Your task to perform on an android device: toggle priority inbox in the gmail app Image 0: 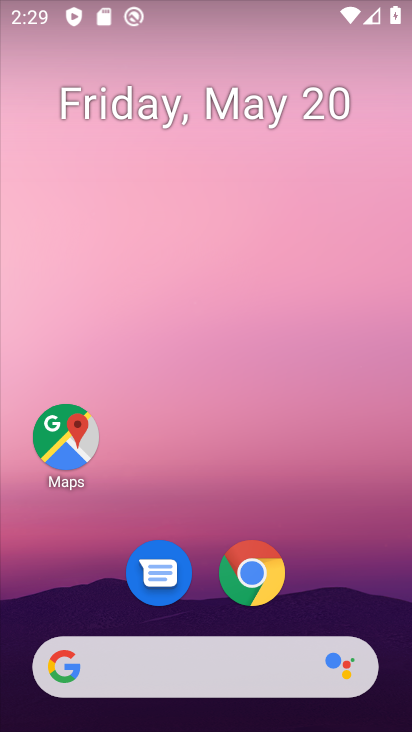
Step 0: drag from (310, 607) to (333, 108)
Your task to perform on an android device: toggle priority inbox in the gmail app Image 1: 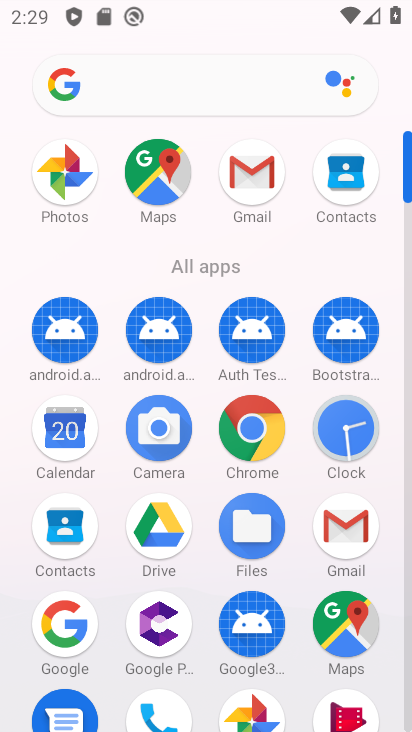
Step 1: click (235, 167)
Your task to perform on an android device: toggle priority inbox in the gmail app Image 2: 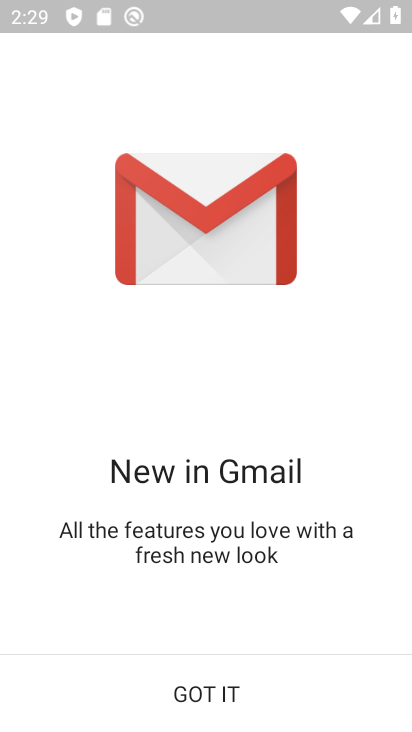
Step 2: click (218, 692)
Your task to perform on an android device: toggle priority inbox in the gmail app Image 3: 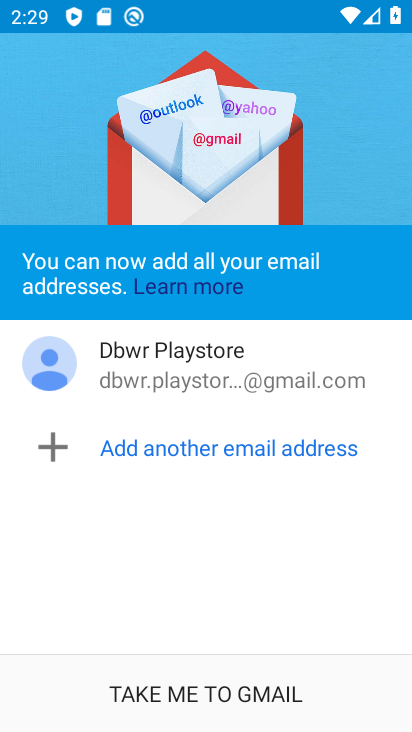
Step 3: click (218, 692)
Your task to perform on an android device: toggle priority inbox in the gmail app Image 4: 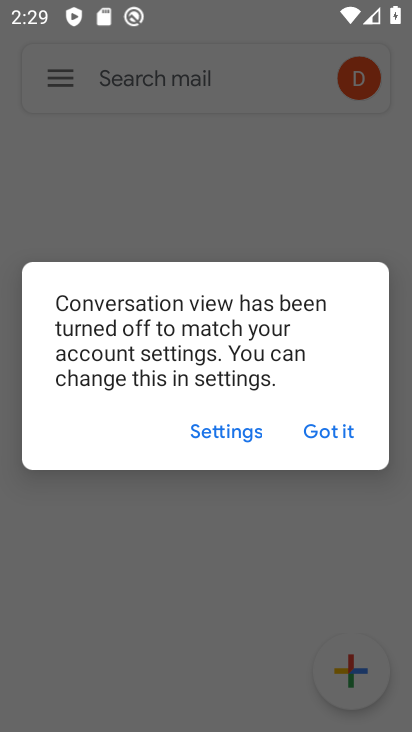
Step 4: click (347, 438)
Your task to perform on an android device: toggle priority inbox in the gmail app Image 5: 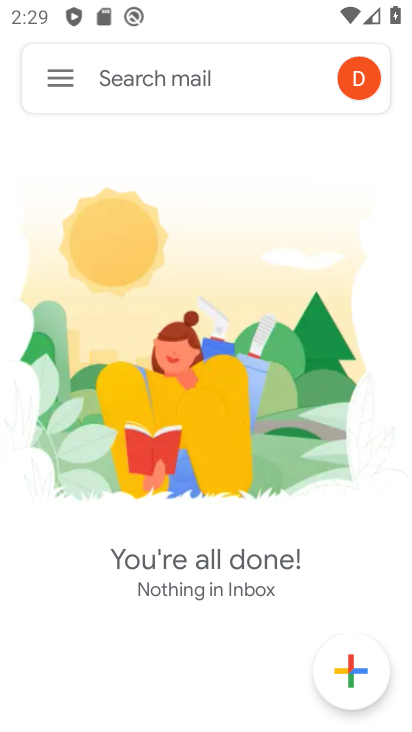
Step 5: click (66, 92)
Your task to perform on an android device: toggle priority inbox in the gmail app Image 6: 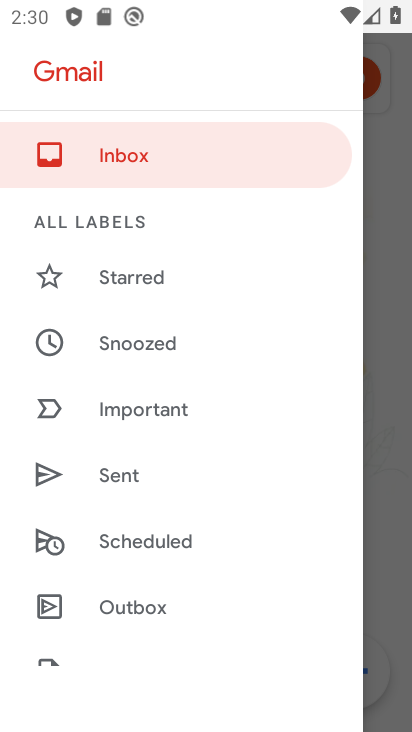
Step 6: drag from (214, 634) to (170, 91)
Your task to perform on an android device: toggle priority inbox in the gmail app Image 7: 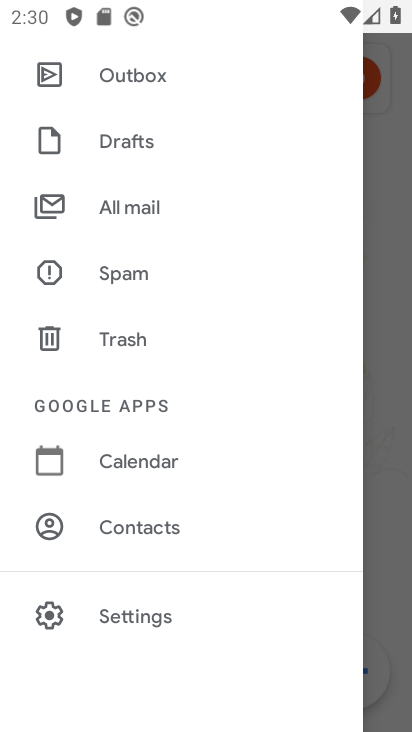
Step 7: click (164, 621)
Your task to perform on an android device: toggle priority inbox in the gmail app Image 8: 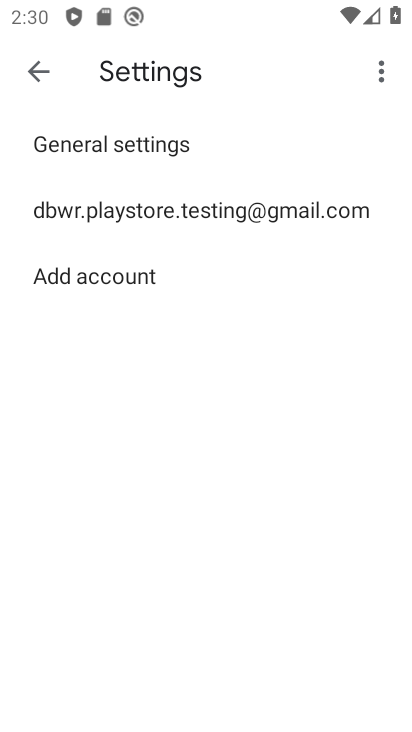
Step 8: click (260, 221)
Your task to perform on an android device: toggle priority inbox in the gmail app Image 9: 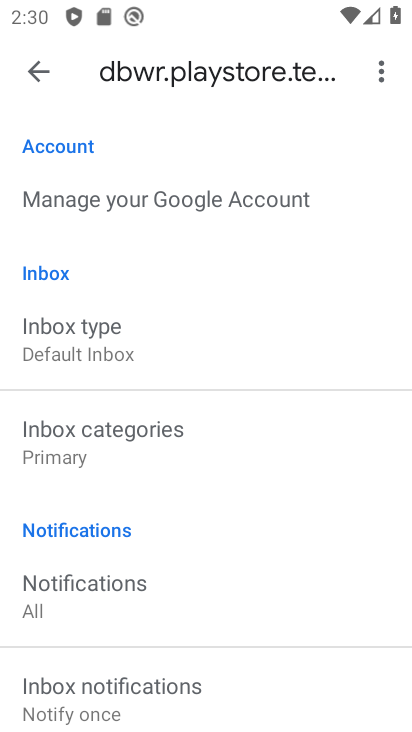
Step 9: click (239, 357)
Your task to perform on an android device: toggle priority inbox in the gmail app Image 10: 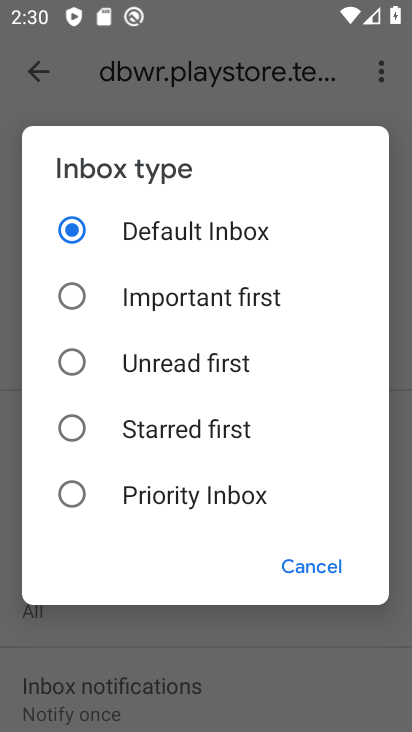
Step 10: click (238, 488)
Your task to perform on an android device: toggle priority inbox in the gmail app Image 11: 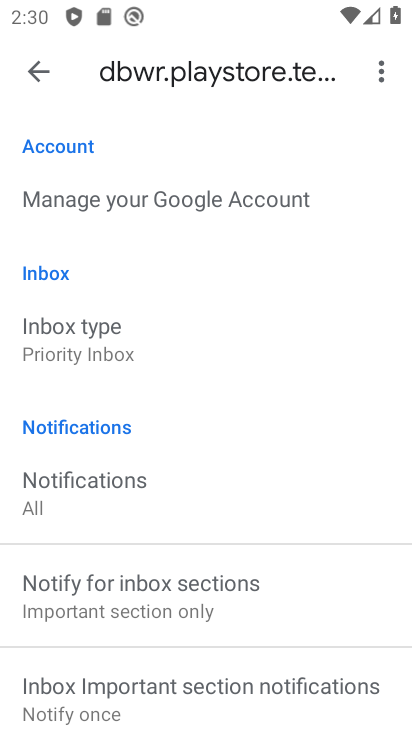
Step 11: task complete